Your task to perform on an android device: Open Yahoo.com Image 0: 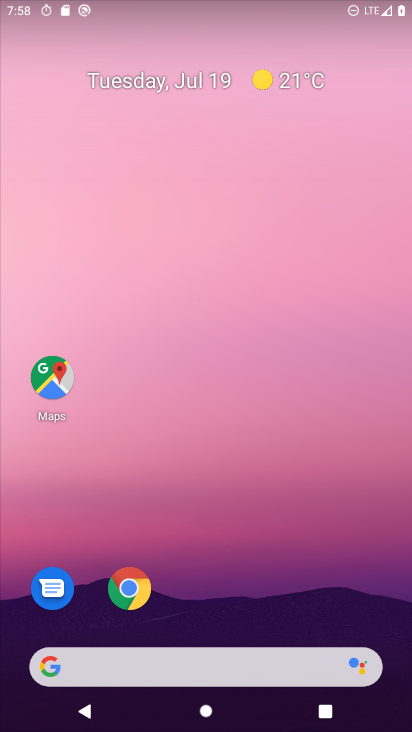
Step 0: drag from (191, 615) to (255, 183)
Your task to perform on an android device: Open Yahoo.com Image 1: 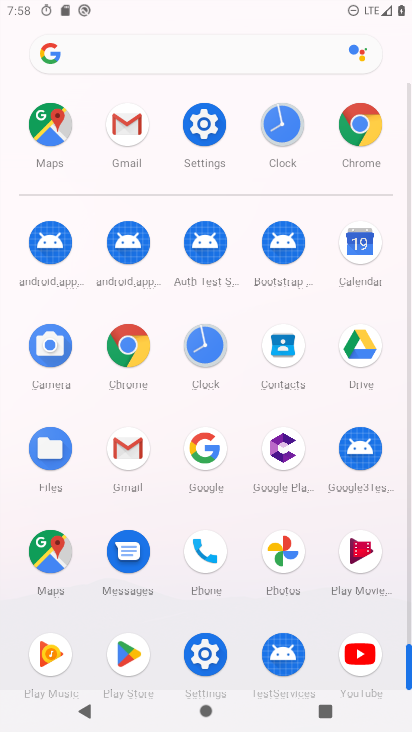
Step 1: click (138, 364)
Your task to perform on an android device: Open Yahoo.com Image 2: 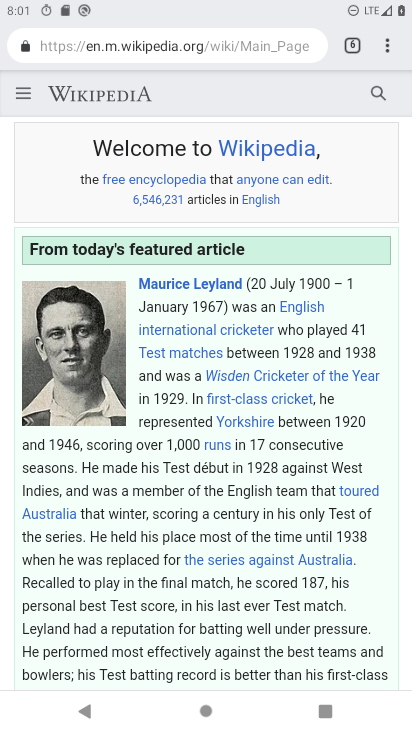
Step 2: click (353, 48)
Your task to perform on an android device: Open Yahoo.com Image 3: 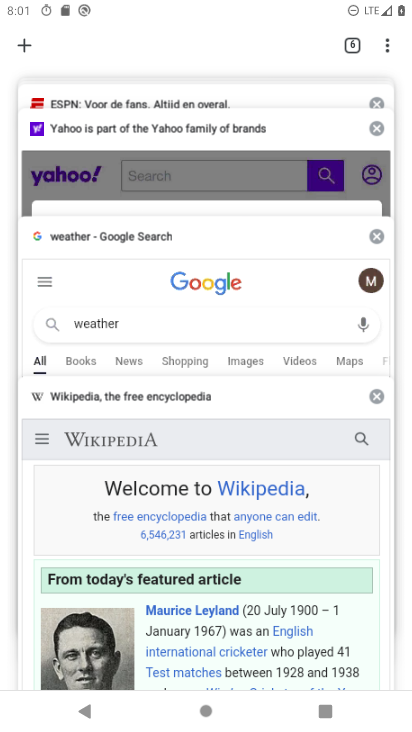
Step 3: click (91, 170)
Your task to perform on an android device: Open Yahoo.com Image 4: 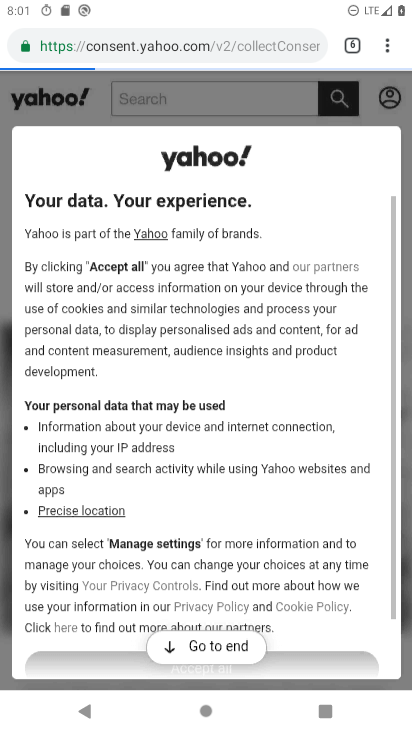
Step 4: task complete